Your task to perform on an android device: turn on javascript in the chrome app Image 0: 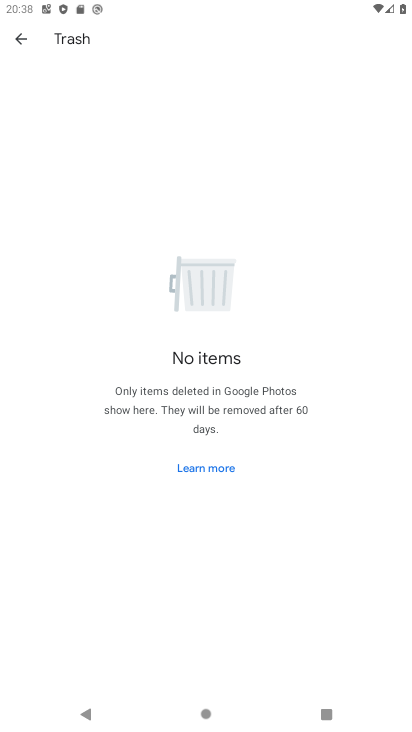
Step 0: press home button
Your task to perform on an android device: turn on javascript in the chrome app Image 1: 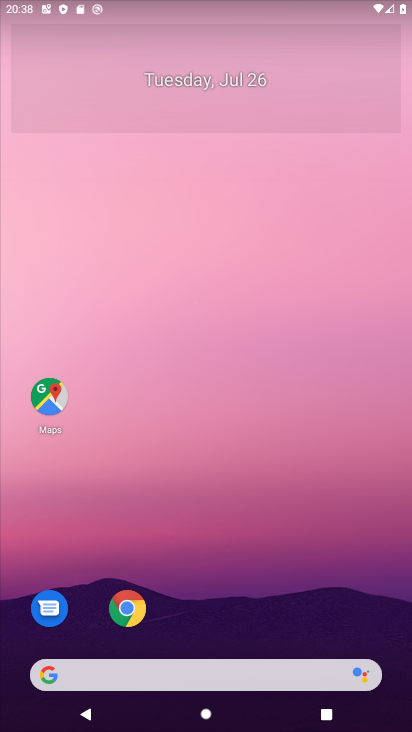
Step 1: click (118, 604)
Your task to perform on an android device: turn on javascript in the chrome app Image 2: 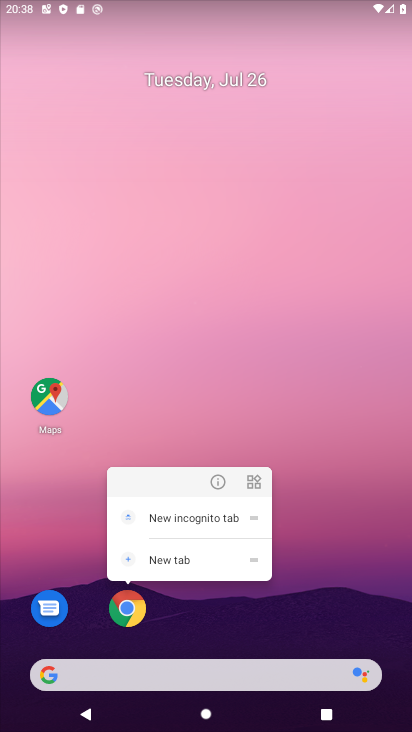
Step 2: click (120, 600)
Your task to perform on an android device: turn on javascript in the chrome app Image 3: 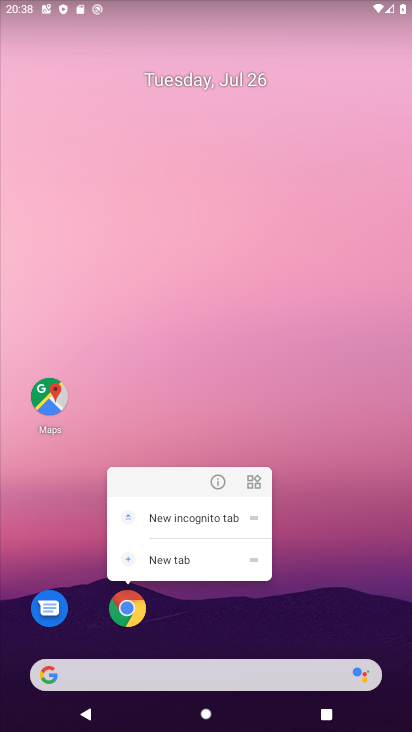
Step 3: click (132, 609)
Your task to perform on an android device: turn on javascript in the chrome app Image 4: 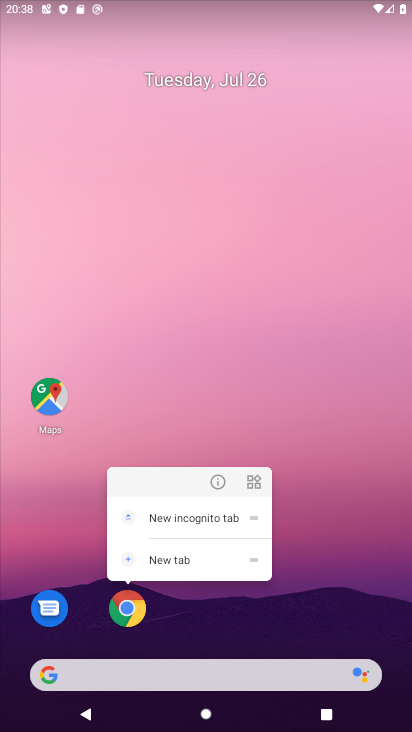
Step 4: click (132, 603)
Your task to perform on an android device: turn on javascript in the chrome app Image 5: 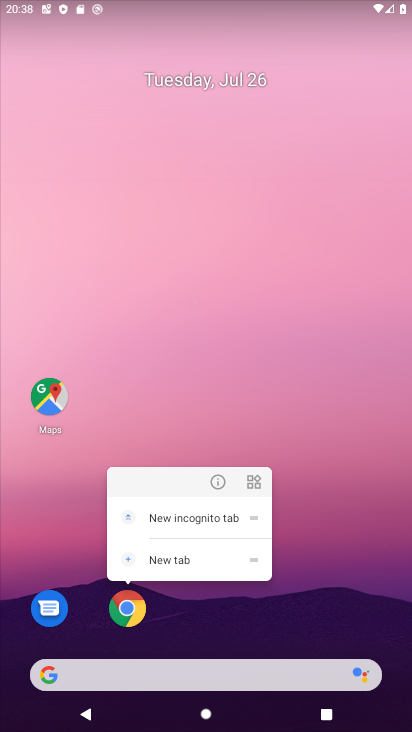
Step 5: click (132, 602)
Your task to perform on an android device: turn on javascript in the chrome app Image 6: 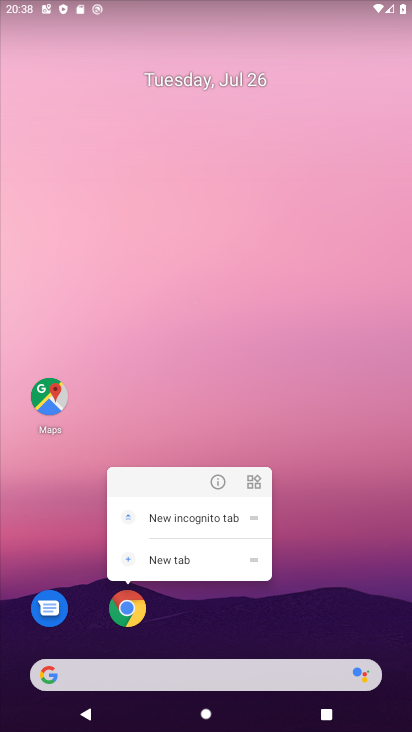
Step 6: click (125, 604)
Your task to perform on an android device: turn on javascript in the chrome app Image 7: 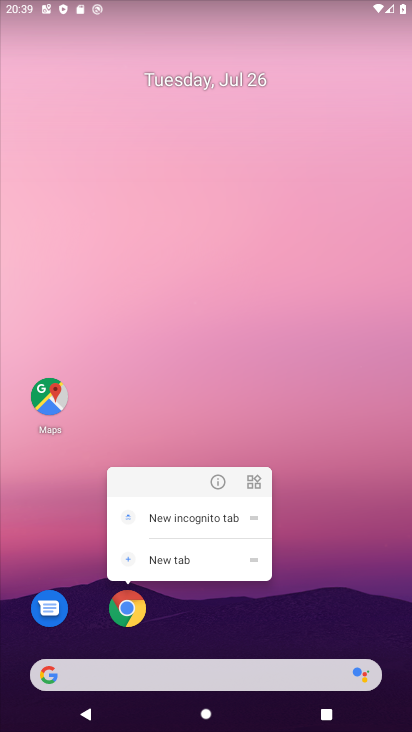
Step 7: click (125, 596)
Your task to perform on an android device: turn on javascript in the chrome app Image 8: 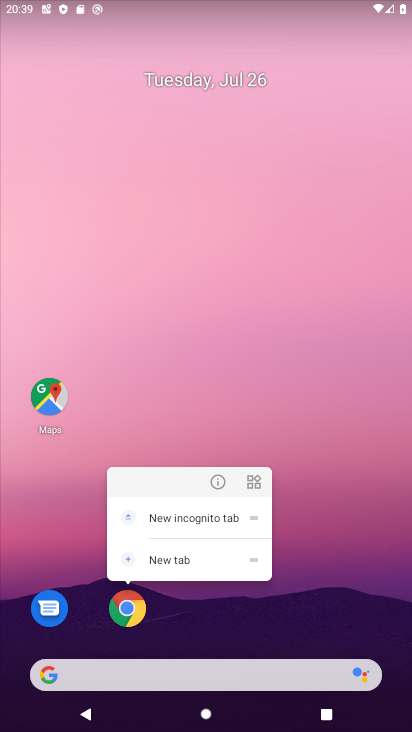
Step 8: task complete